Your task to perform on an android device: open a new tab in the chrome app Image 0: 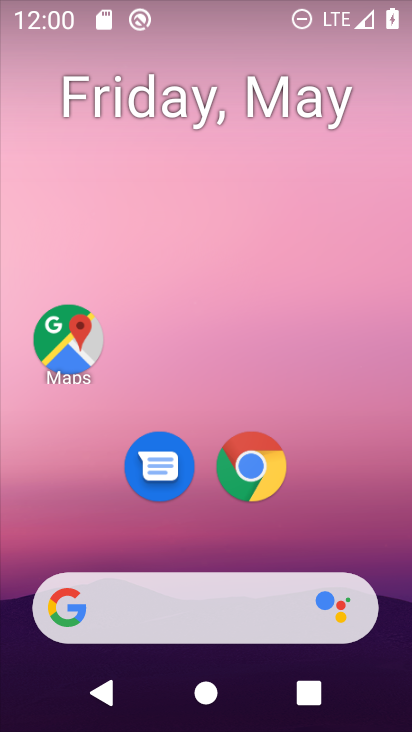
Step 0: drag from (197, 593) to (360, 2)
Your task to perform on an android device: open a new tab in the chrome app Image 1: 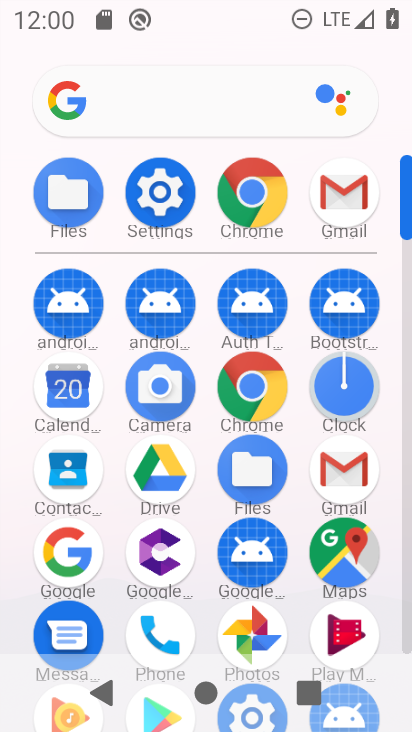
Step 1: click (257, 400)
Your task to perform on an android device: open a new tab in the chrome app Image 2: 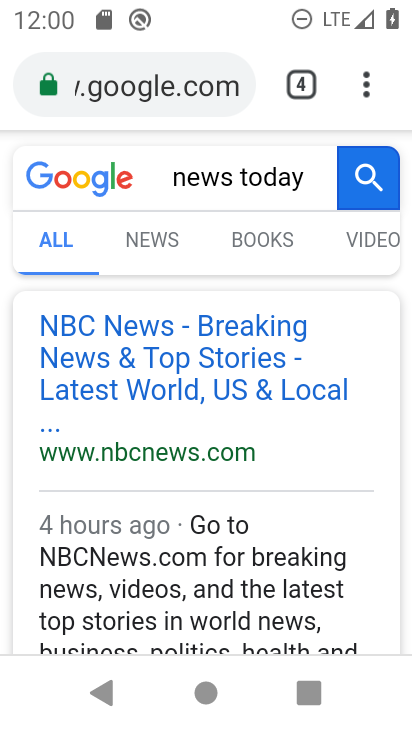
Step 2: click (376, 88)
Your task to perform on an android device: open a new tab in the chrome app Image 3: 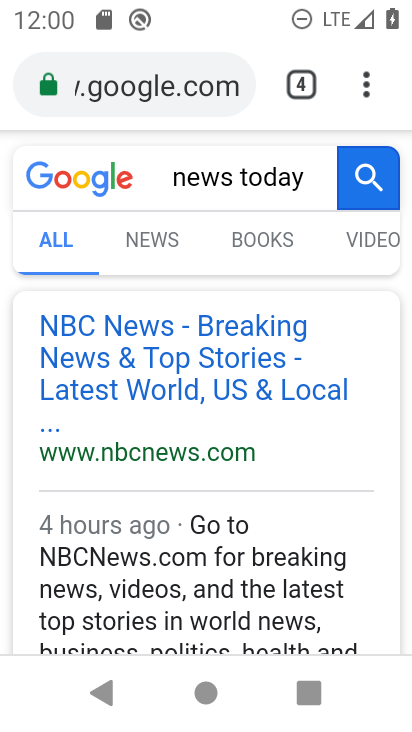
Step 3: task complete